Your task to perform on an android device: change alarm snooze length Image 0: 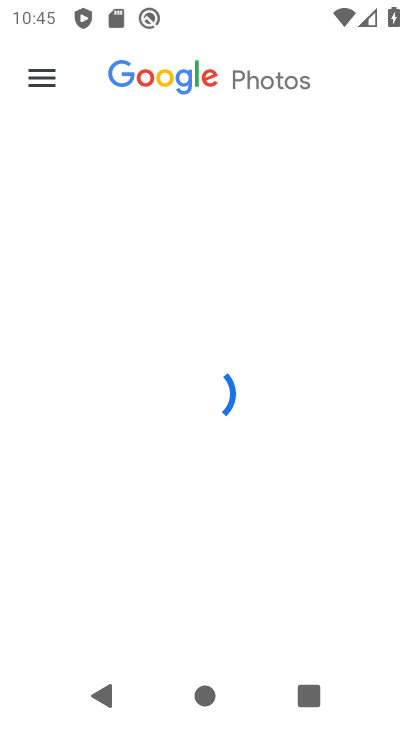
Step 0: press home button
Your task to perform on an android device: change alarm snooze length Image 1: 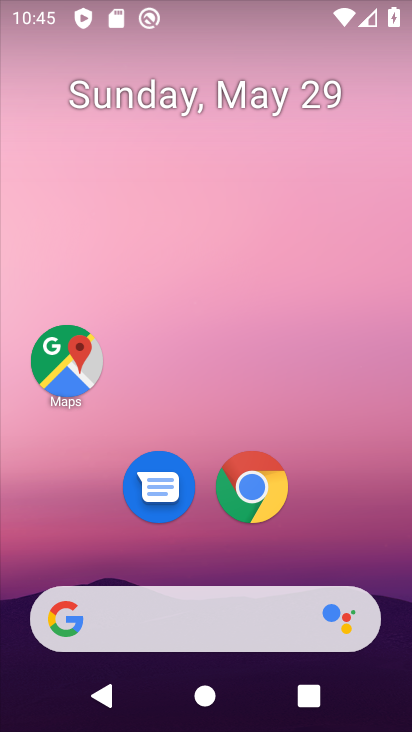
Step 1: drag from (212, 564) to (270, 49)
Your task to perform on an android device: change alarm snooze length Image 2: 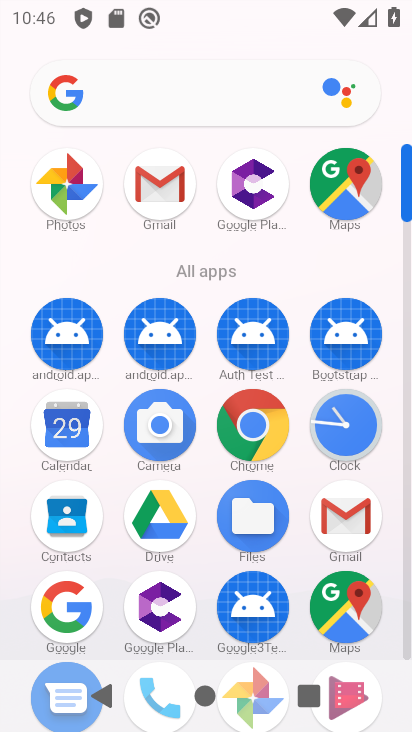
Step 2: drag from (205, 569) to (233, 145)
Your task to perform on an android device: change alarm snooze length Image 3: 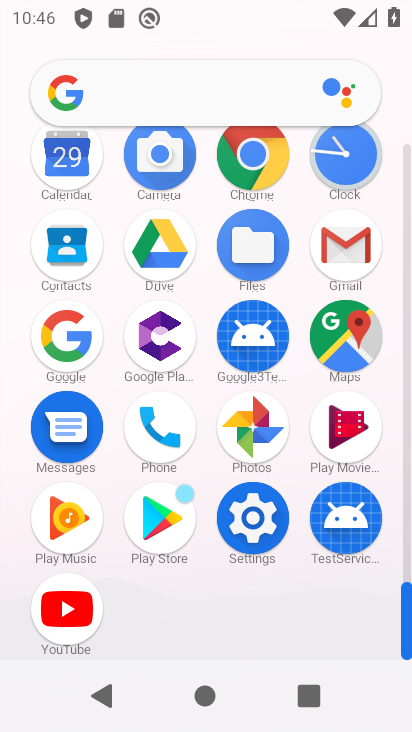
Step 3: click (342, 147)
Your task to perform on an android device: change alarm snooze length Image 4: 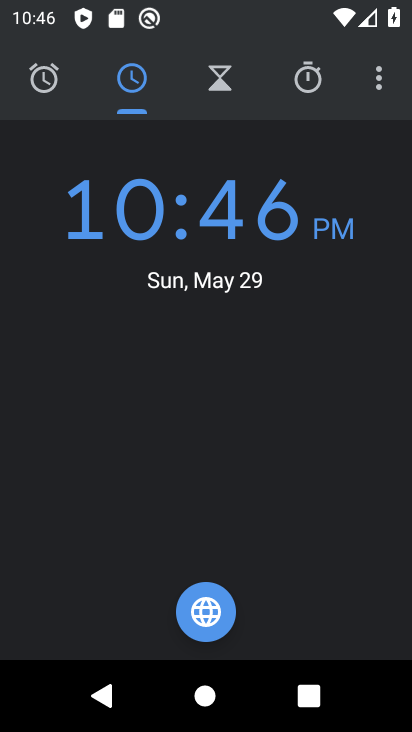
Step 4: click (386, 78)
Your task to perform on an android device: change alarm snooze length Image 5: 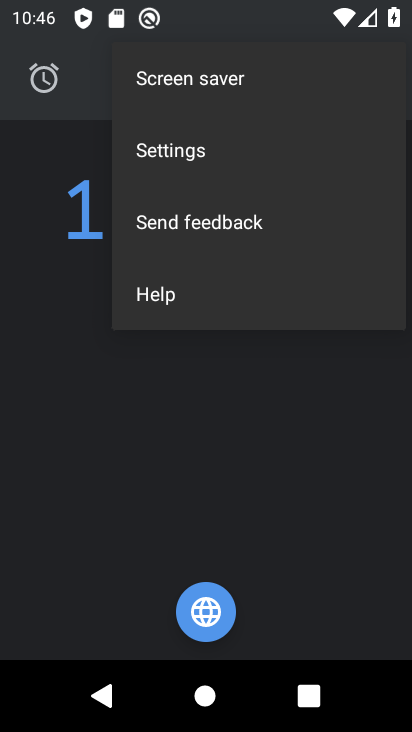
Step 5: click (207, 147)
Your task to perform on an android device: change alarm snooze length Image 6: 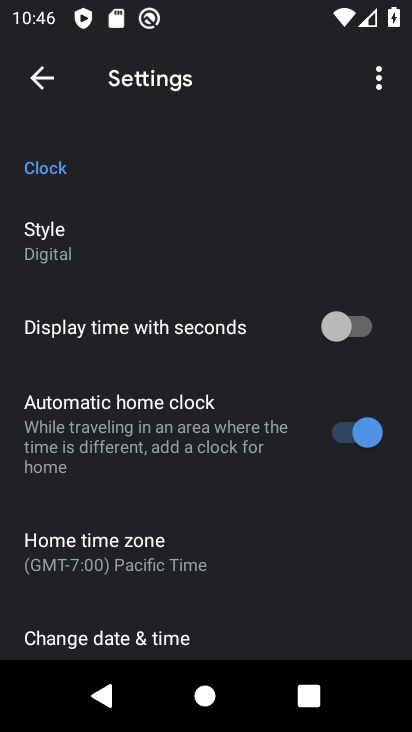
Step 6: drag from (209, 603) to (241, 115)
Your task to perform on an android device: change alarm snooze length Image 7: 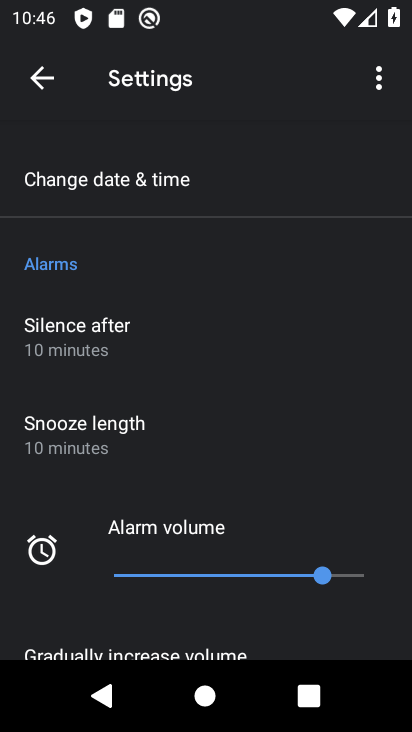
Step 7: click (158, 441)
Your task to perform on an android device: change alarm snooze length Image 8: 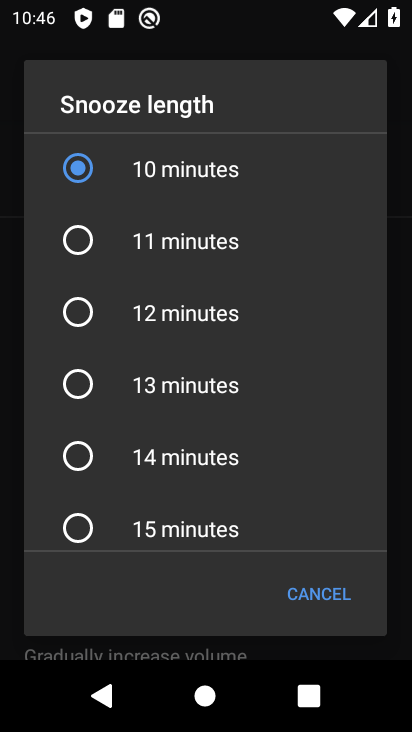
Step 8: drag from (123, 192) to (166, 517)
Your task to perform on an android device: change alarm snooze length Image 9: 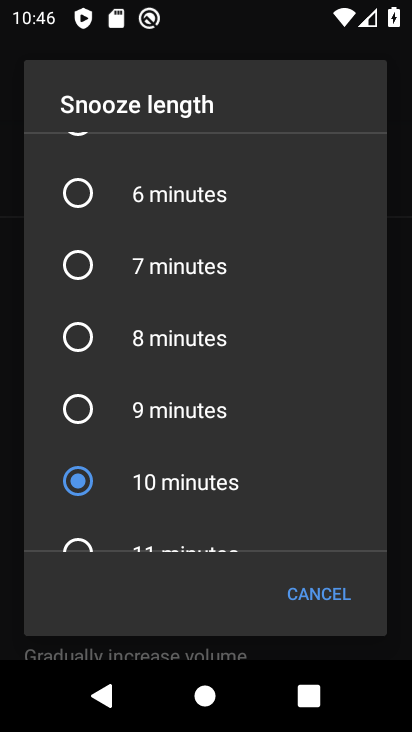
Step 9: click (77, 193)
Your task to perform on an android device: change alarm snooze length Image 10: 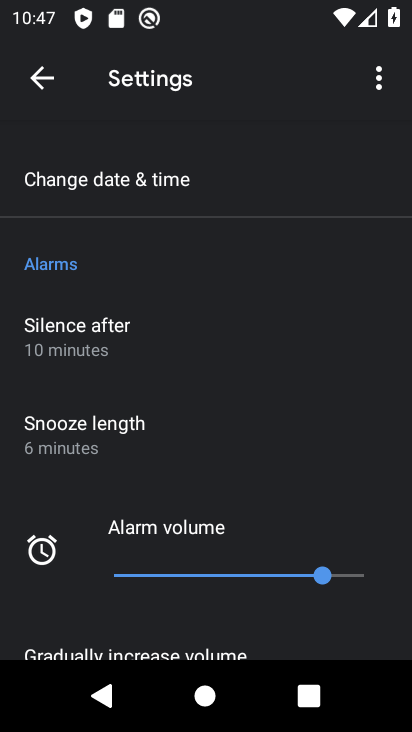
Step 10: task complete